Your task to perform on an android device: Show me the alarms in the clock app Image 0: 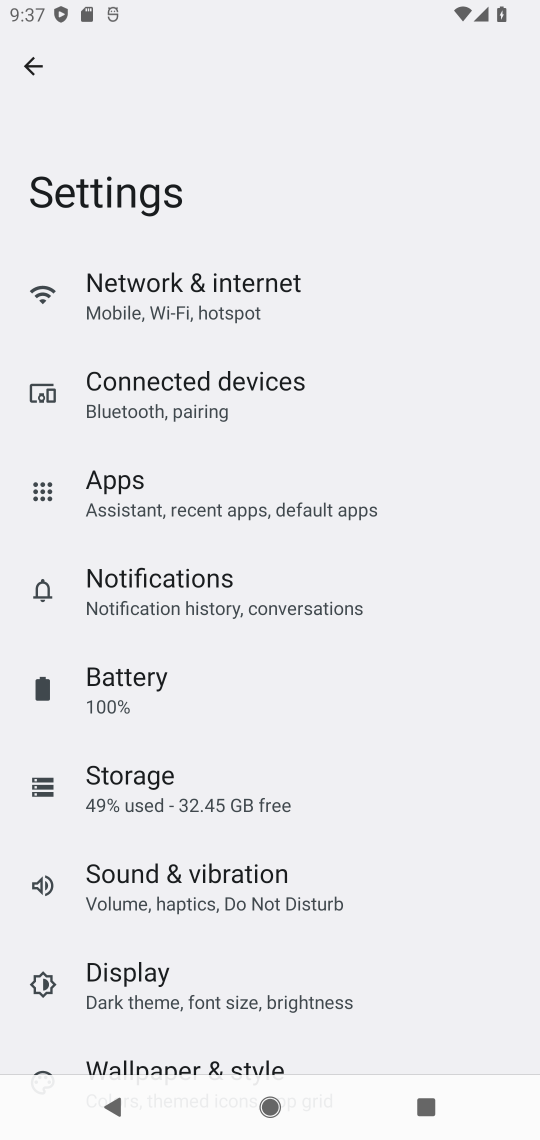
Step 0: press back button
Your task to perform on an android device: Show me the alarms in the clock app Image 1: 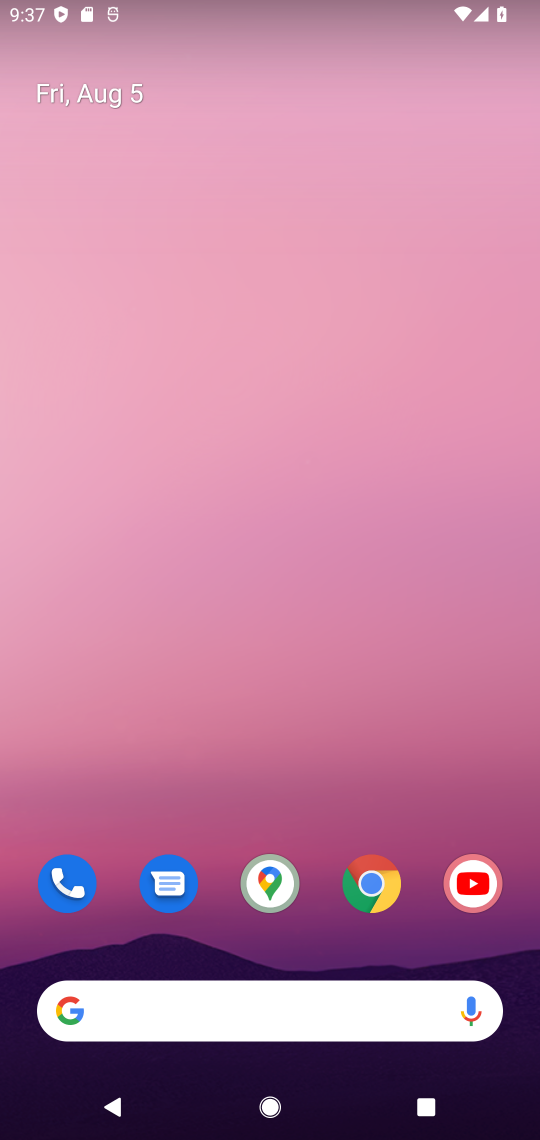
Step 1: drag from (293, 895) to (401, 20)
Your task to perform on an android device: Show me the alarms in the clock app Image 2: 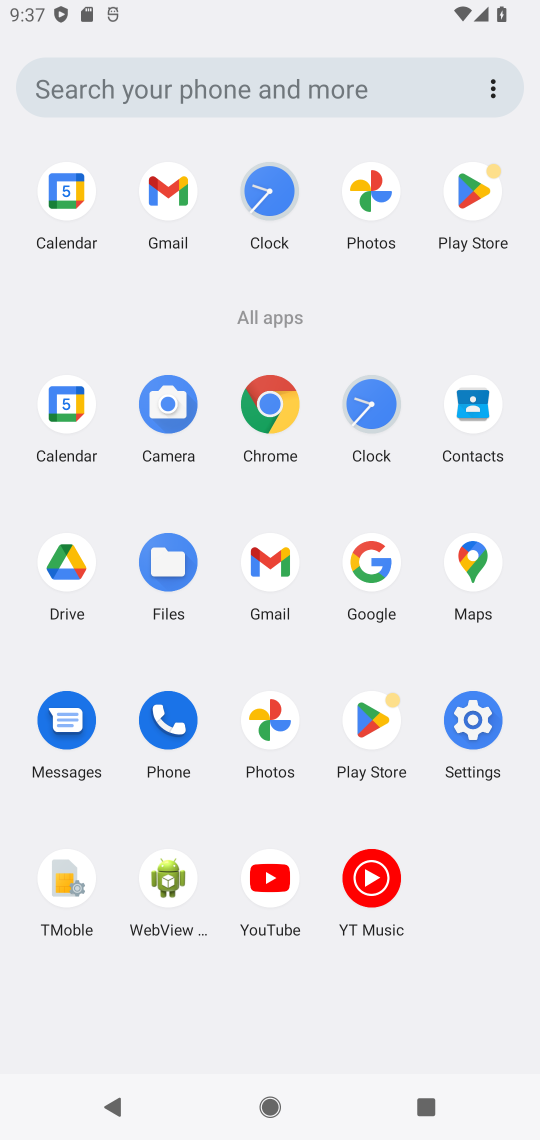
Step 2: click (368, 406)
Your task to perform on an android device: Show me the alarms in the clock app Image 3: 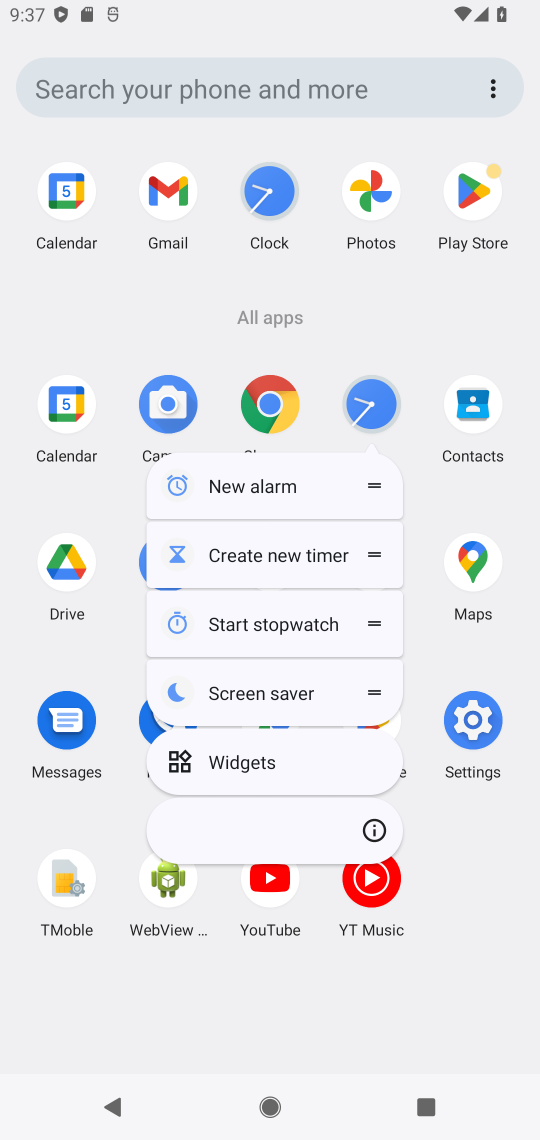
Step 3: click (388, 398)
Your task to perform on an android device: Show me the alarms in the clock app Image 4: 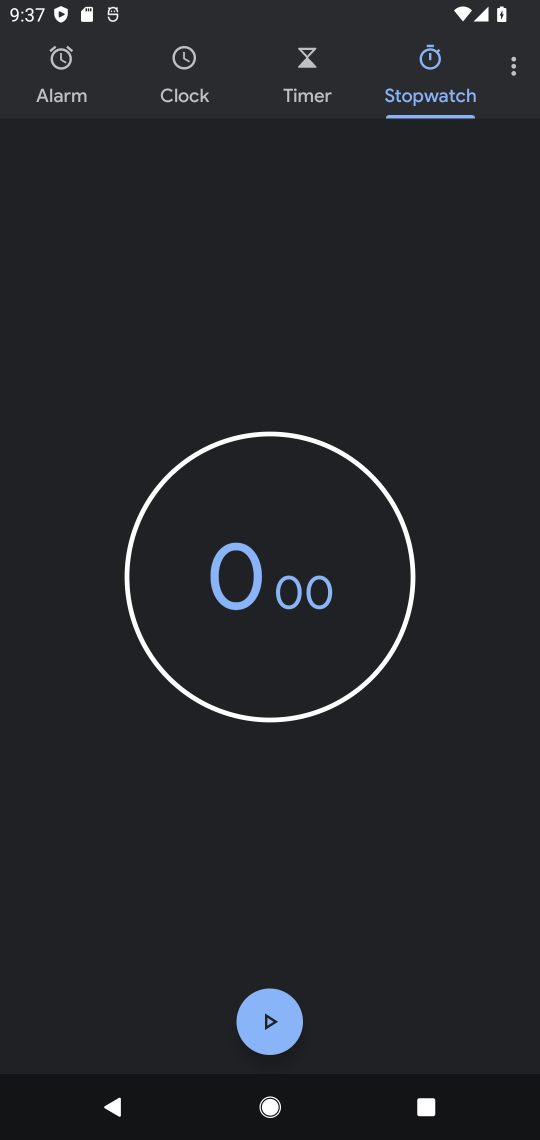
Step 4: click (60, 91)
Your task to perform on an android device: Show me the alarms in the clock app Image 5: 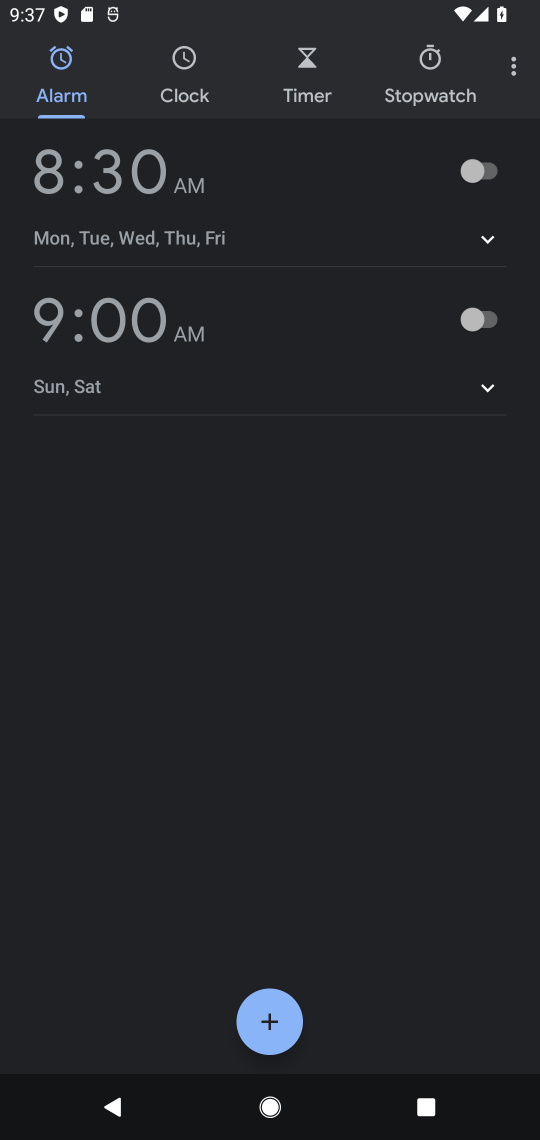
Step 5: task complete